Your task to perform on an android device: turn off notifications in google photos Image 0: 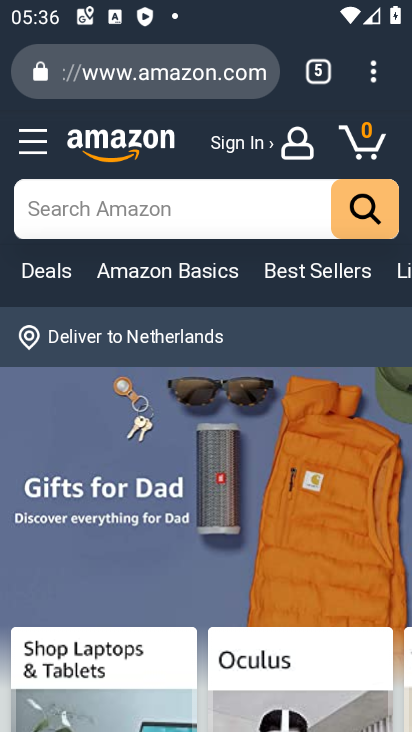
Step 0: press home button
Your task to perform on an android device: turn off notifications in google photos Image 1: 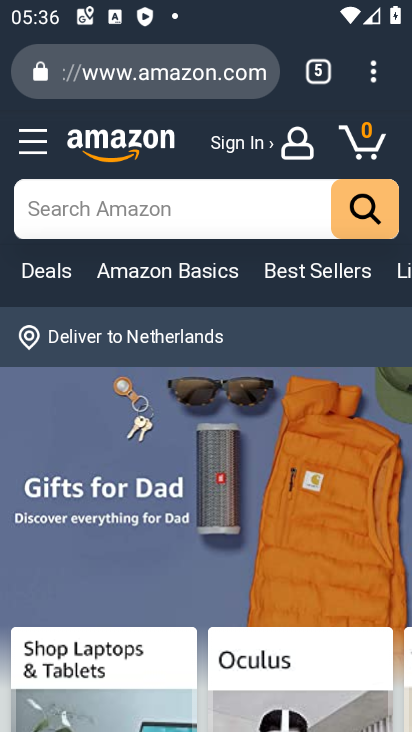
Step 1: click (408, 538)
Your task to perform on an android device: turn off notifications in google photos Image 2: 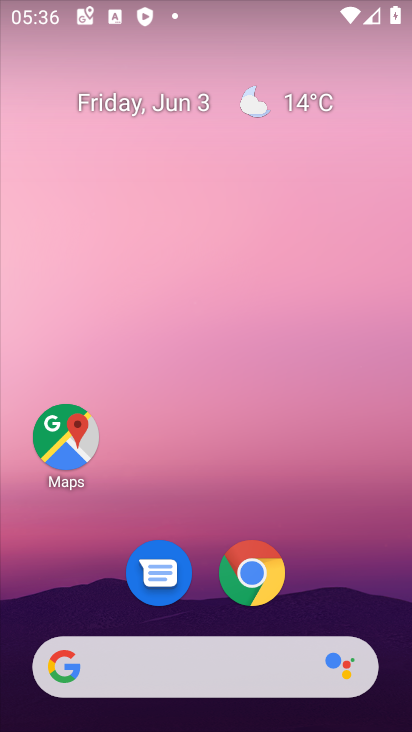
Step 2: drag from (308, 642) to (314, 3)
Your task to perform on an android device: turn off notifications in google photos Image 3: 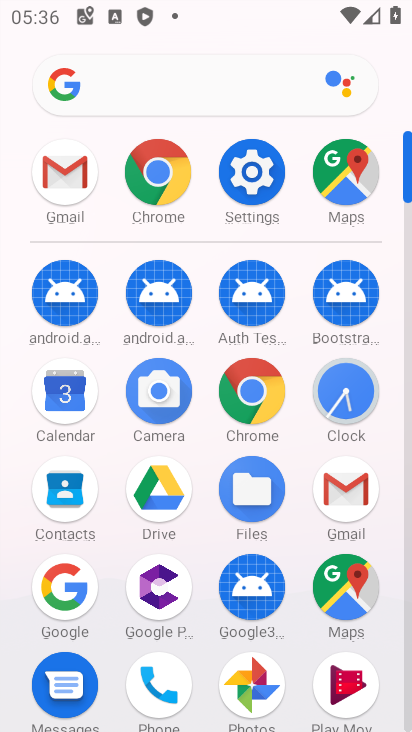
Step 3: click (244, 682)
Your task to perform on an android device: turn off notifications in google photos Image 4: 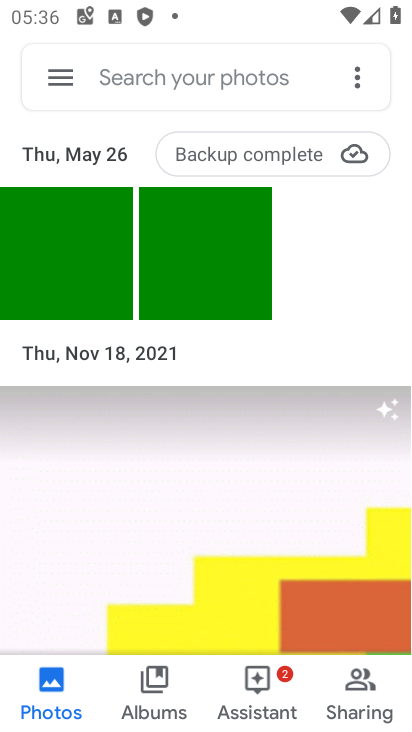
Step 4: click (58, 77)
Your task to perform on an android device: turn off notifications in google photos Image 5: 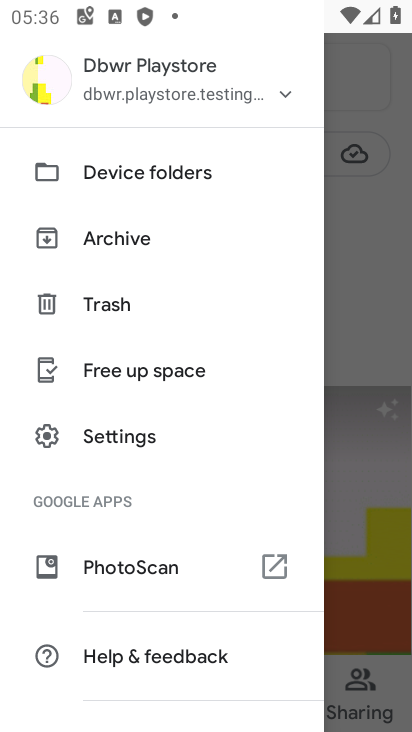
Step 5: drag from (164, 680) to (171, 238)
Your task to perform on an android device: turn off notifications in google photos Image 6: 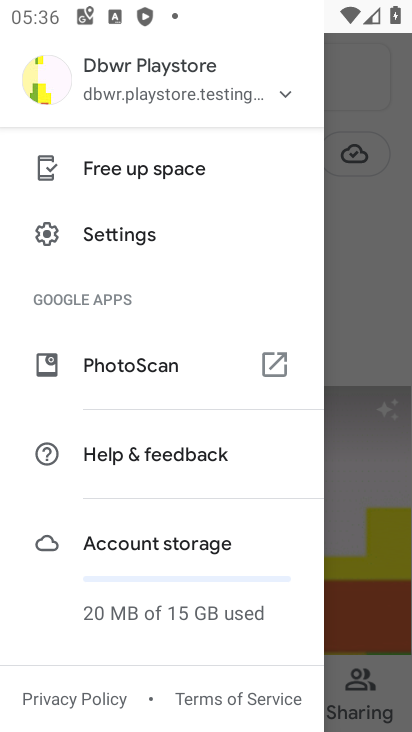
Step 6: click (136, 229)
Your task to perform on an android device: turn off notifications in google photos Image 7: 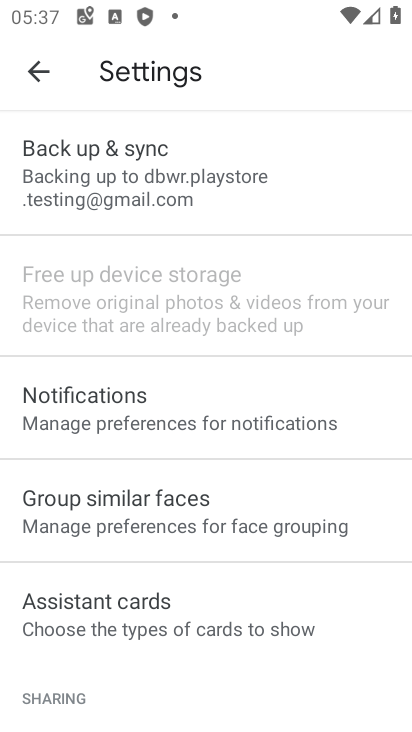
Step 7: click (147, 404)
Your task to perform on an android device: turn off notifications in google photos Image 8: 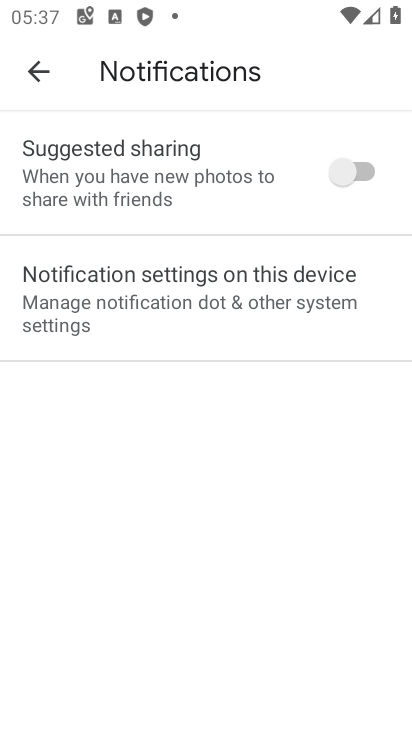
Step 8: click (255, 316)
Your task to perform on an android device: turn off notifications in google photos Image 9: 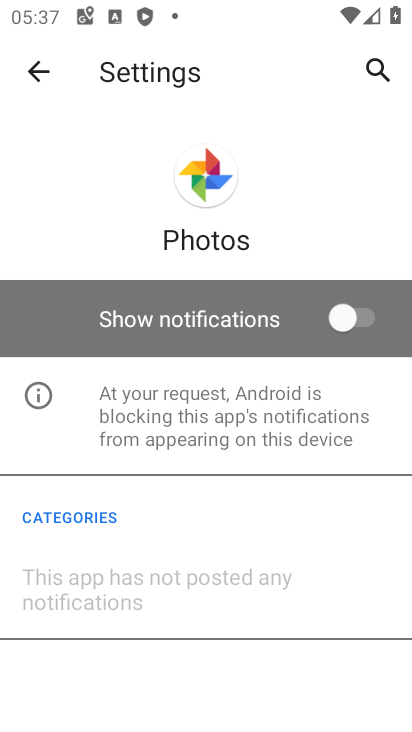
Step 9: task complete